Your task to perform on an android device: Open calendar and show me the second week of next month Image 0: 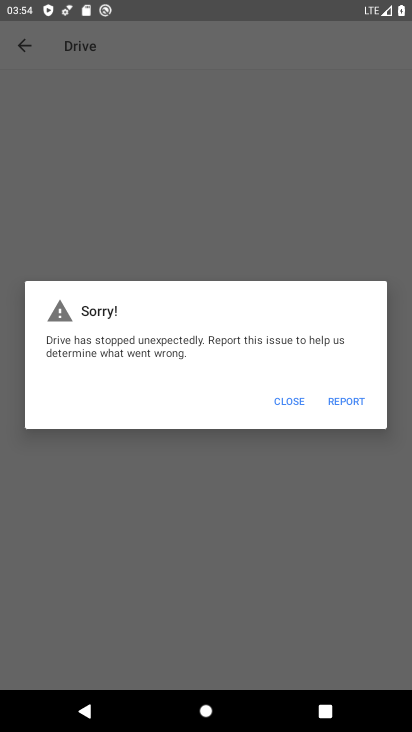
Step 0: press home button
Your task to perform on an android device: Open calendar and show me the second week of next month Image 1: 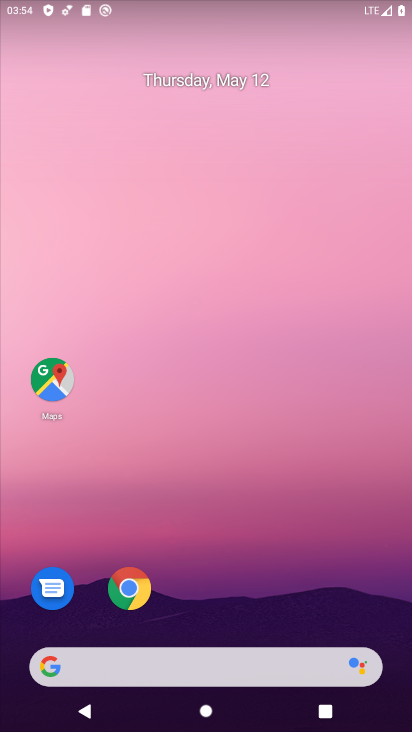
Step 1: drag from (215, 606) to (294, 174)
Your task to perform on an android device: Open calendar and show me the second week of next month Image 2: 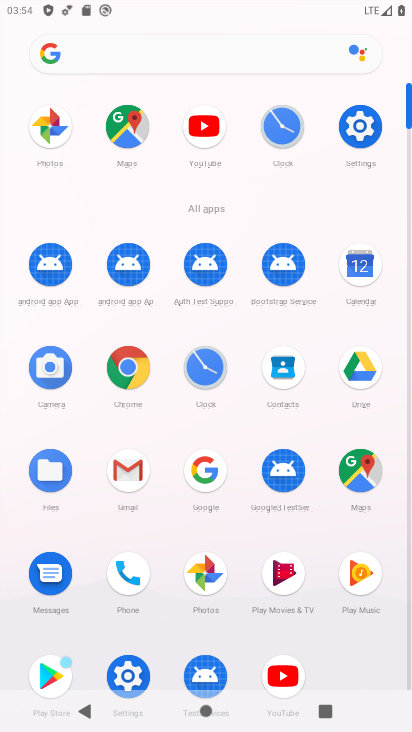
Step 2: click (364, 275)
Your task to perform on an android device: Open calendar and show me the second week of next month Image 3: 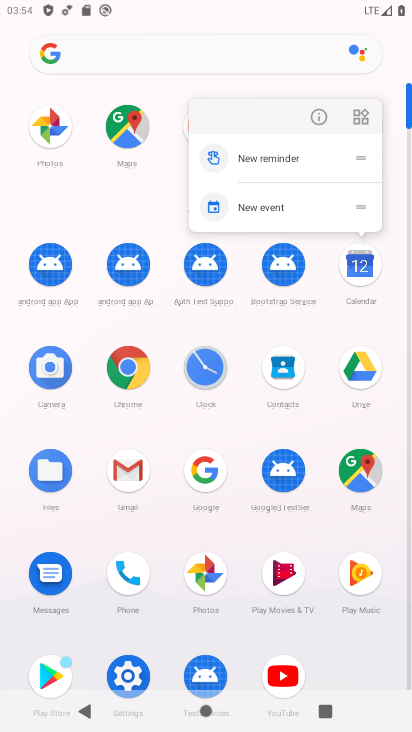
Step 3: click (312, 115)
Your task to perform on an android device: Open calendar and show me the second week of next month Image 4: 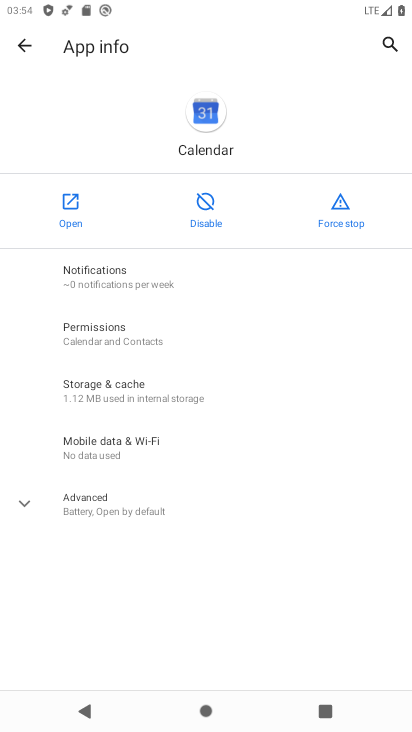
Step 4: click (71, 206)
Your task to perform on an android device: Open calendar and show me the second week of next month Image 5: 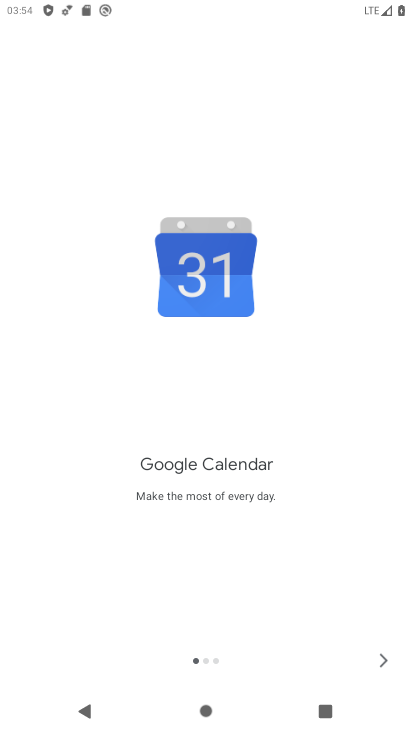
Step 5: click (245, 442)
Your task to perform on an android device: Open calendar and show me the second week of next month Image 6: 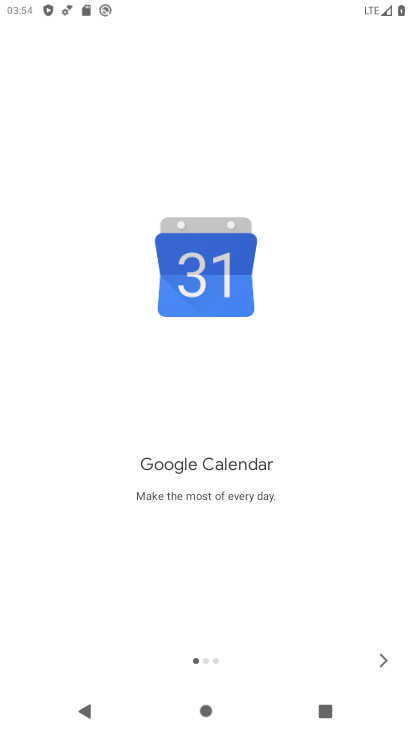
Step 6: click (367, 638)
Your task to perform on an android device: Open calendar and show me the second week of next month Image 7: 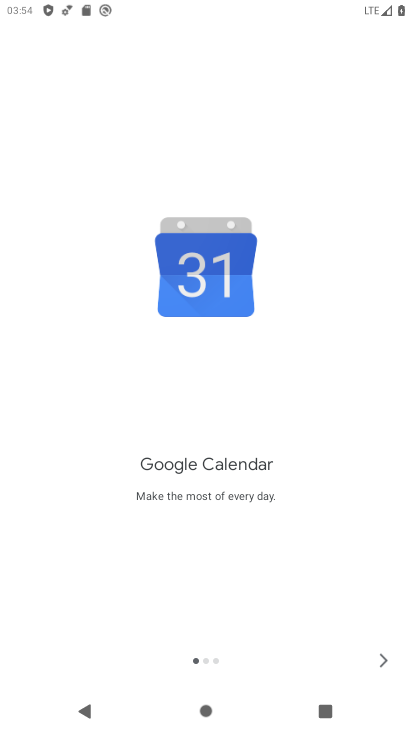
Step 7: click (377, 649)
Your task to perform on an android device: Open calendar and show me the second week of next month Image 8: 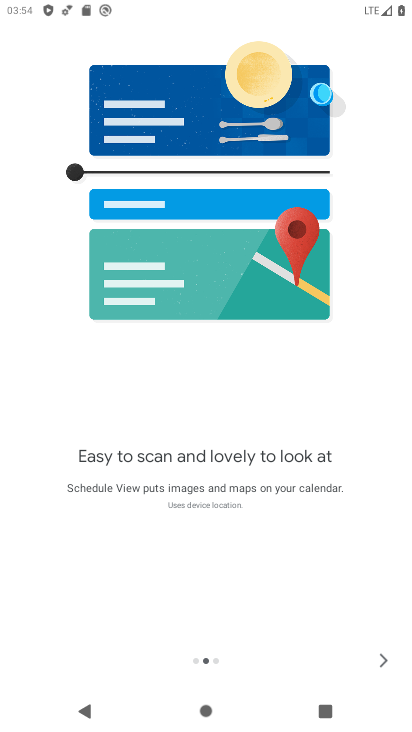
Step 8: click (385, 658)
Your task to perform on an android device: Open calendar and show me the second week of next month Image 9: 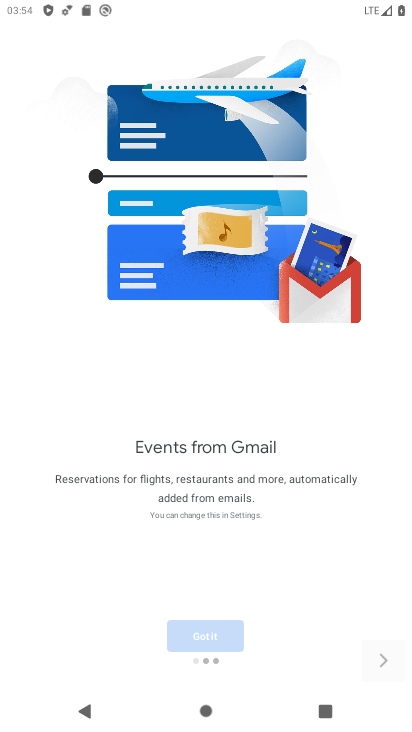
Step 9: click (385, 658)
Your task to perform on an android device: Open calendar and show me the second week of next month Image 10: 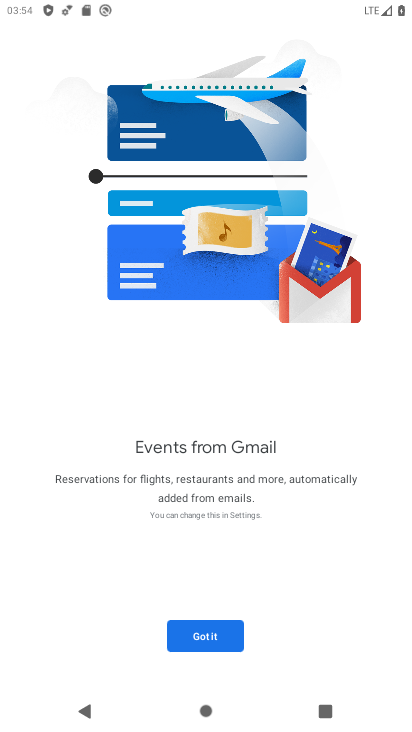
Step 10: click (228, 643)
Your task to perform on an android device: Open calendar and show me the second week of next month Image 11: 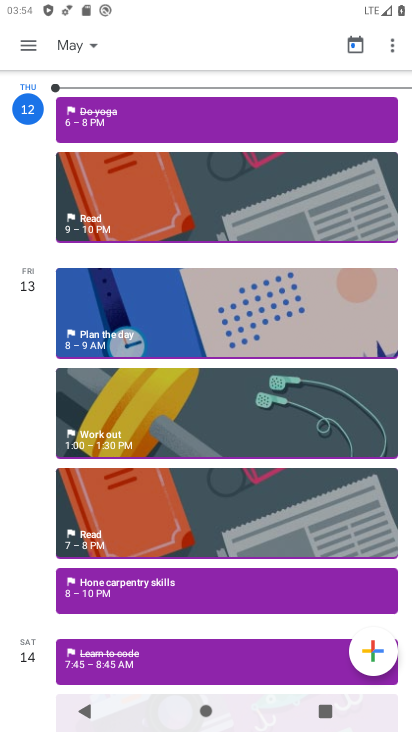
Step 11: drag from (266, 617) to (277, 366)
Your task to perform on an android device: Open calendar and show me the second week of next month Image 12: 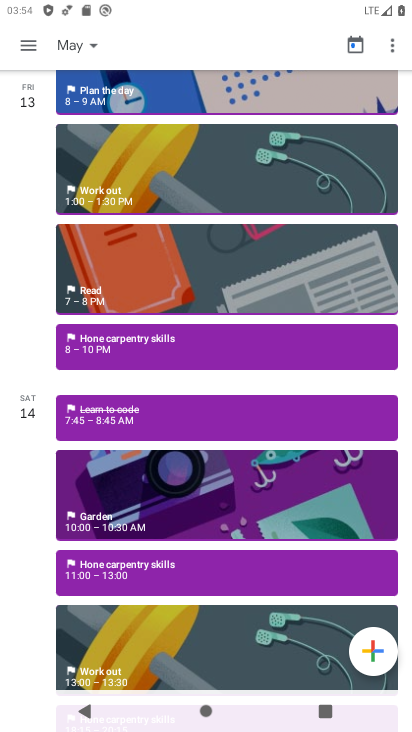
Step 12: drag from (244, 166) to (263, 731)
Your task to perform on an android device: Open calendar and show me the second week of next month Image 13: 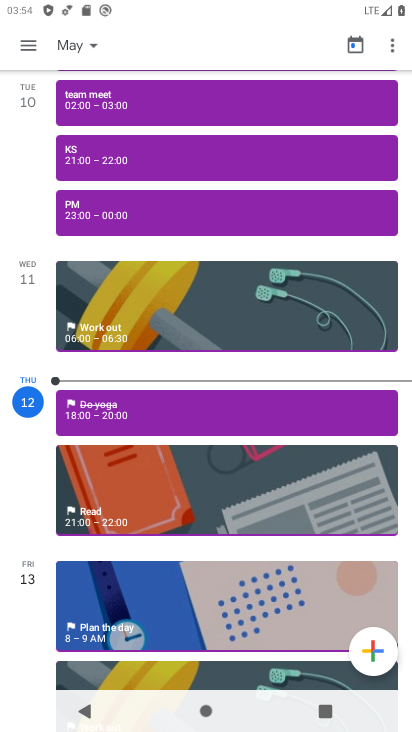
Step 13: click (74, 47)
Your task to perform on an android device: Open calendar and show me the second week of next month Image 14: 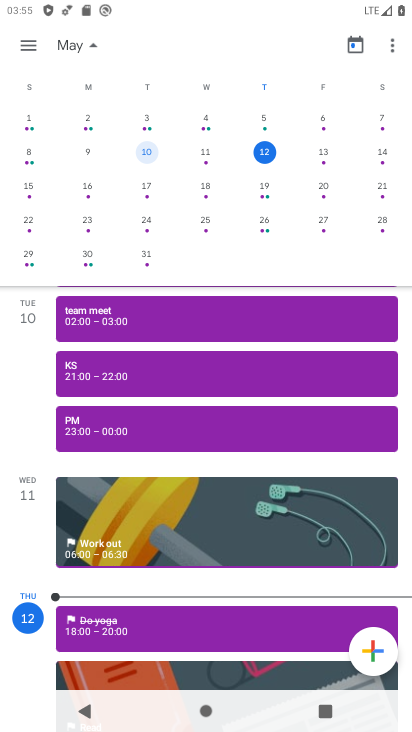
Step 14: drag from (345, 190) to (7, 165)
Your task to perform on an android device: Open calendar and show me the second week of next month Image 15: 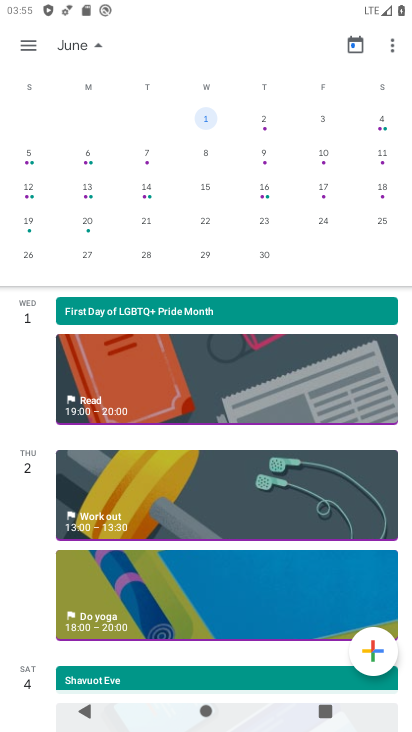
Step 15: click (205, 152)
Your task to perform on an android device: Open calendar and show me the second week of next month Image 16: 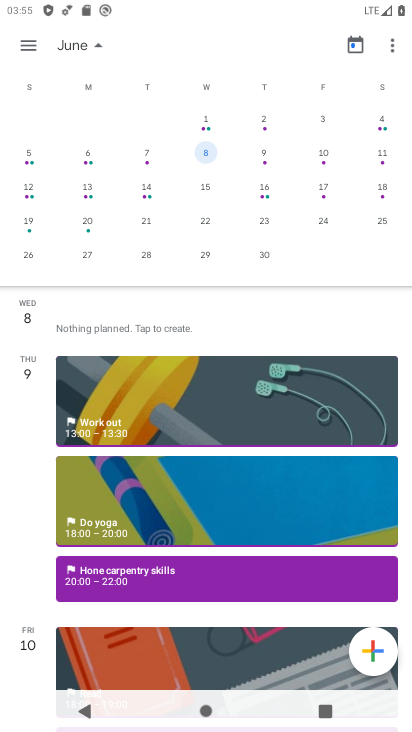
Step 16: task complete